Your task to perform on an android device: Open Google Maps and go to "Timeline" Image 0: 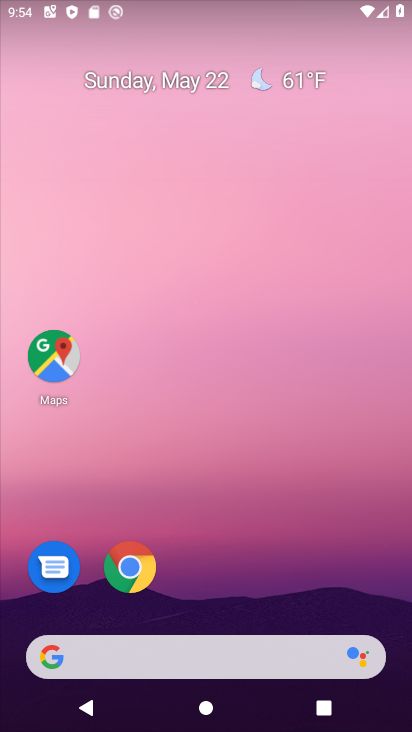
Step 0: drag from (196, 639) to (131, 39)
Your task to perform on an android device: Open Google Maps and go to "Timeline" Image 1: 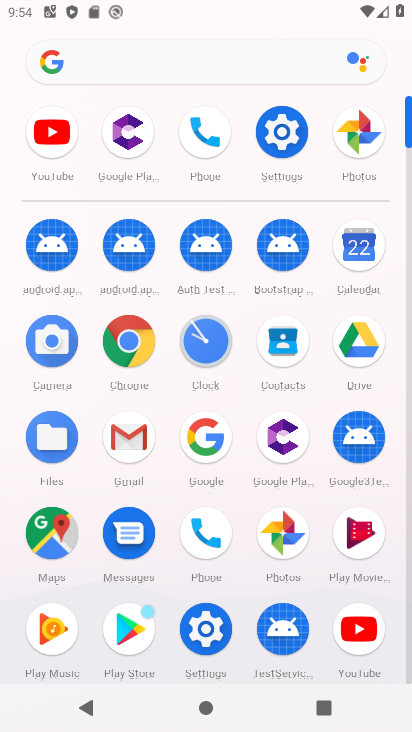
Step 1: click (50, 546)
Your task to perform on an android device: Open Google Maps and go to "Timeline" Image 2: 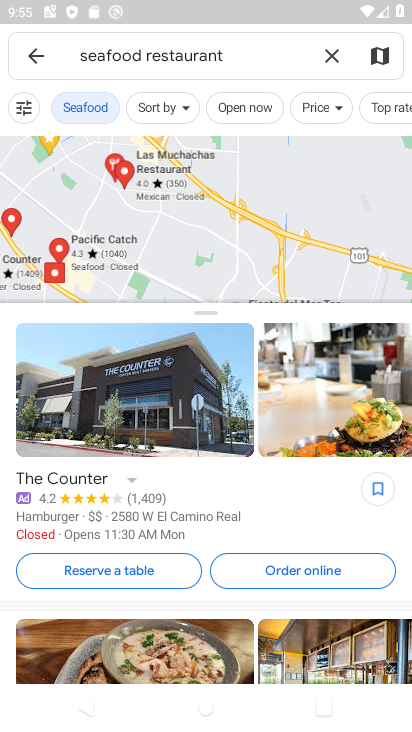
Step 2: click (23, 57)
Your task to perform on an android device: Open Google Maps and go to "Timeline" Image 3: 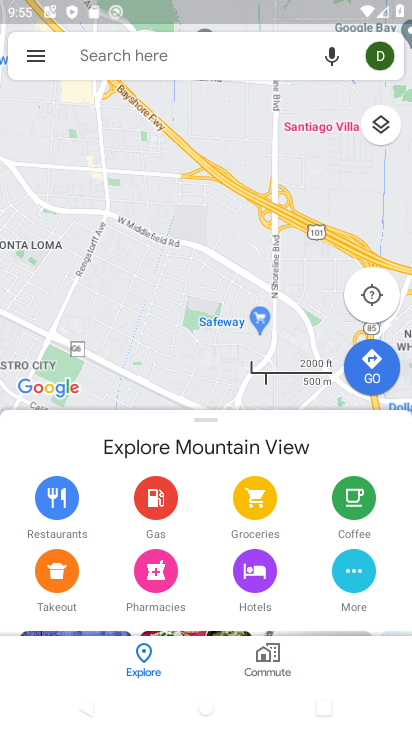
Step 3: click (32, 54)
Your task to perform on an android device: Open Google Maps and go to "Timeline" Image 4: 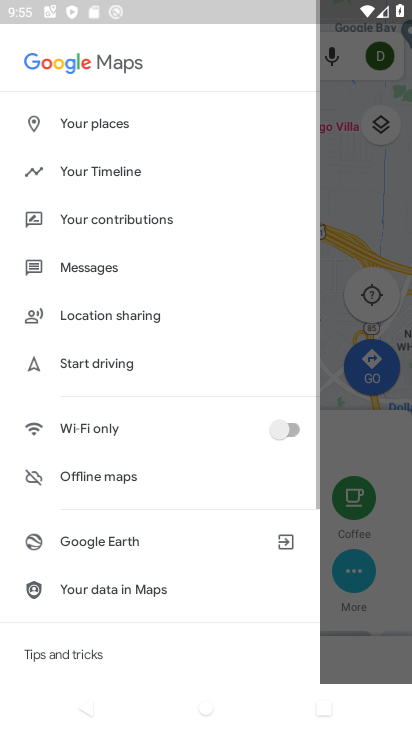
Step 4: click (106, 173)
Your task to perform on an android device: Open Google Maps and go to "Timeline" Image 5: 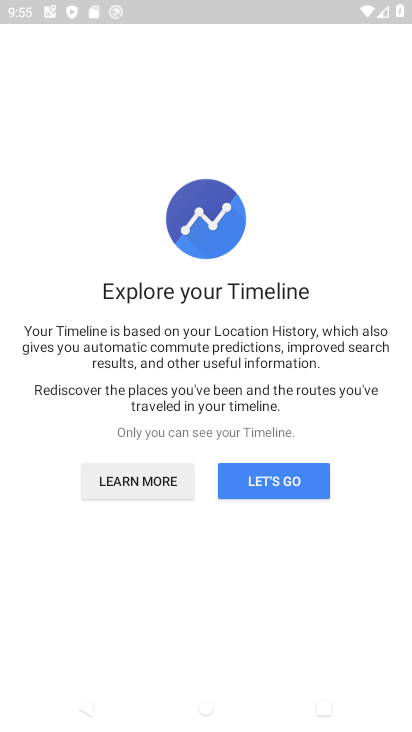
Step 5: click (299, 494)
Your task to perform on an android device: Open Google Maps and go to "Timeline" Image 6: 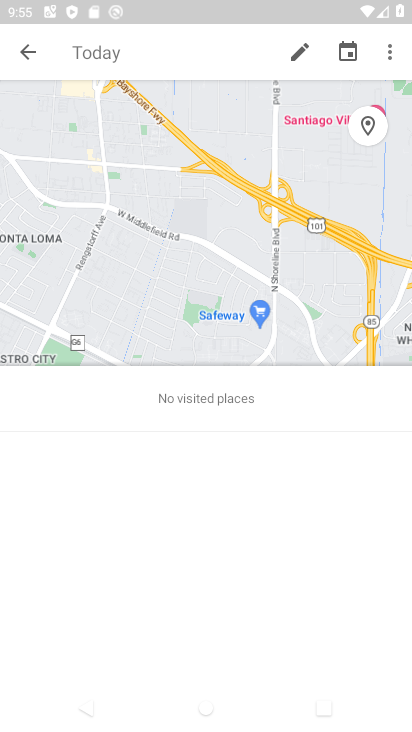
Step 6: task complete